Your task to perform on an android device: search for starred emails in the gmail app Image 0: 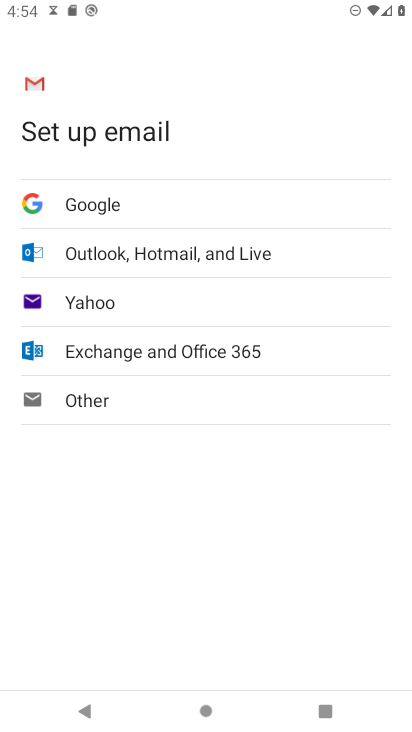
Step 0: press back button
Your task to perform on an android device: search for starred emails in the gmail app Image 1: 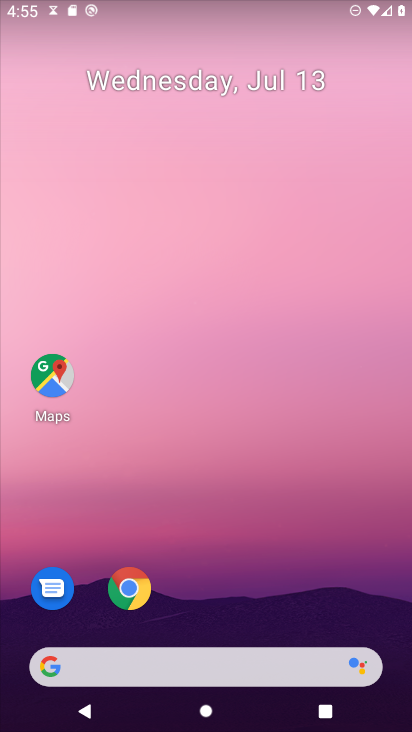
Step 1: drag from (255, 676) to (174, 299)
Your task to perform on an android device: search for starred emails in the gmail app Image 2: 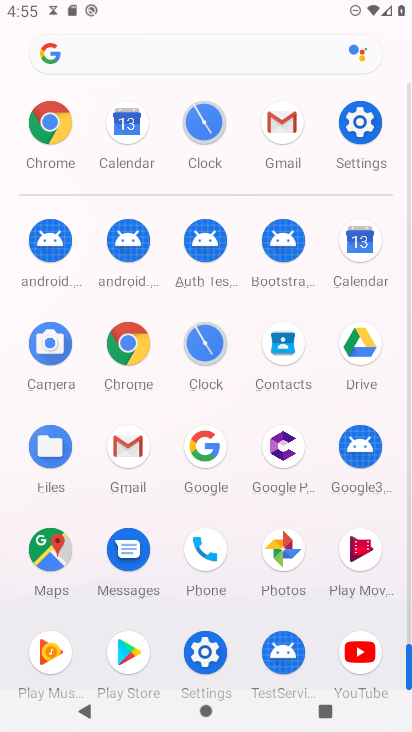
Step 2: click (105, 451)
Your task to perform on an android device: search for starred emails in the gmail app Image 3: 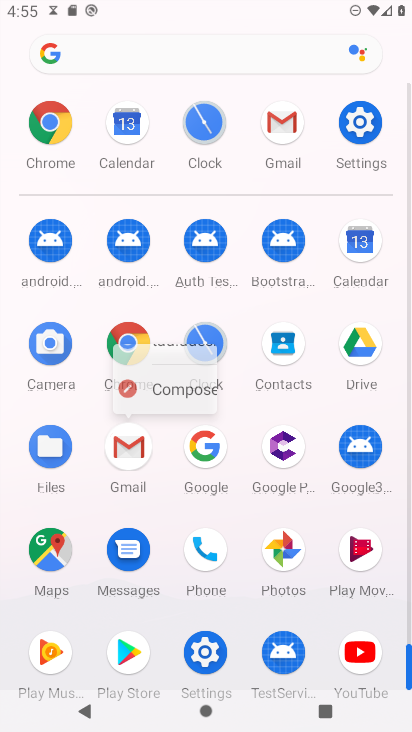
Step 3: click (105, 451)
Your task to perform on an android device: search for starred emails in the gmail app Image 4: 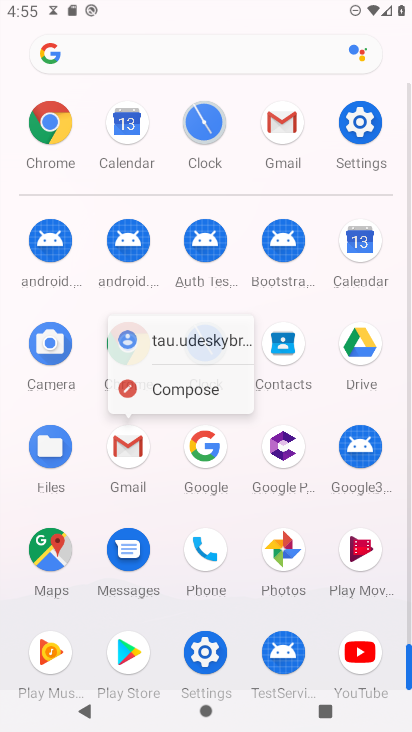
Step 4: click (117, 452)
Your task to perform on an android device: search for starred emails in the gmail app Image 5: 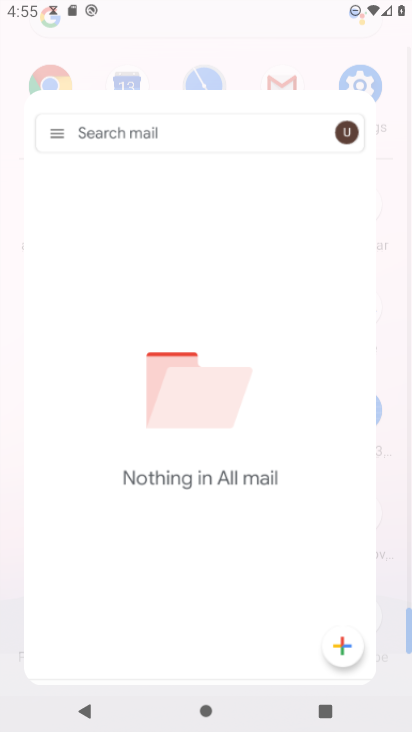
Step 5: click (120, 454)
Your task to perform on an android device: search for starred emails in the gmail app Image 6: 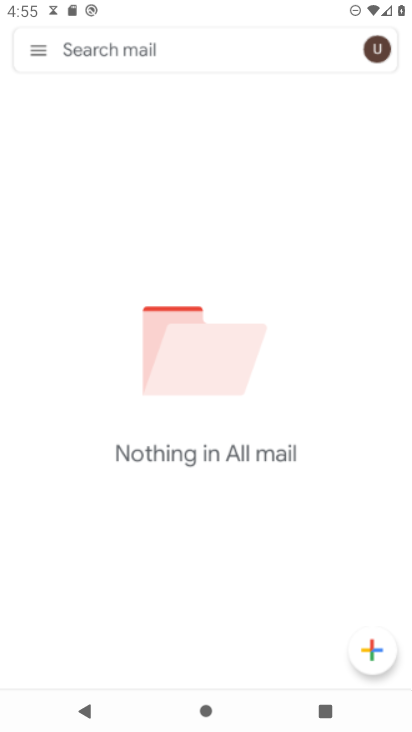
Step 6: click (120, 454)
Your task to perform on an android device: search for starred emails in the gmail app Image 7: 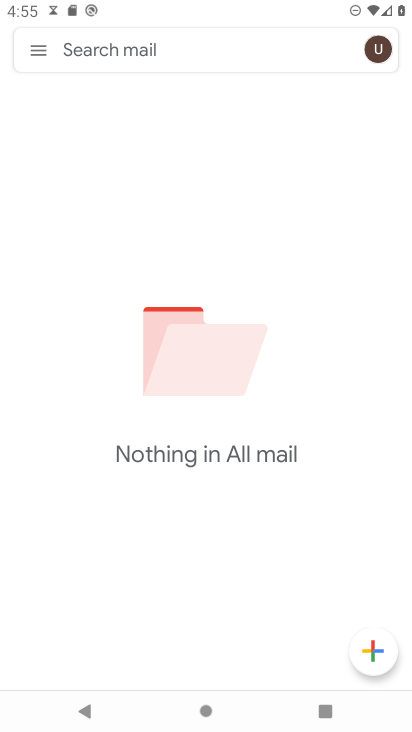
Step 7: click (52, 45)
Your task to perform on an android device: search for starred emails in the gmail app Image 8: 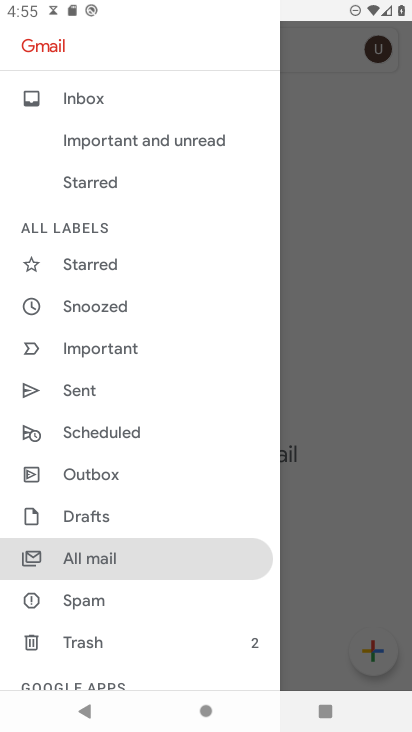
Step 8: click (81, 260)
Your task to perform on an android device: search for starred emails in the gmail app Image 9: 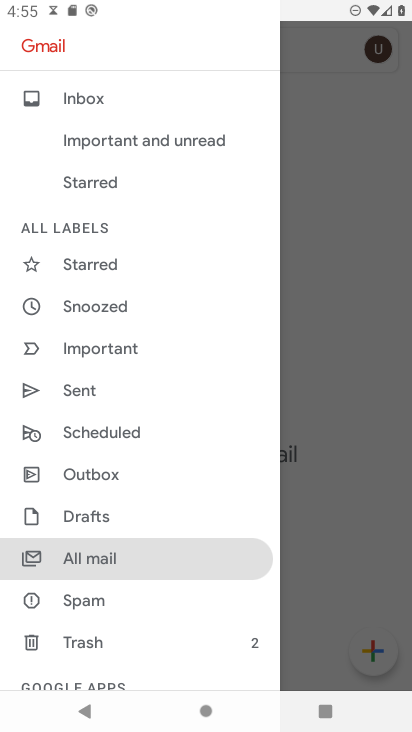
Step 9: click (81, 259)
Your task to perform on an android device: search for starred emails in the gmail app Image 10: 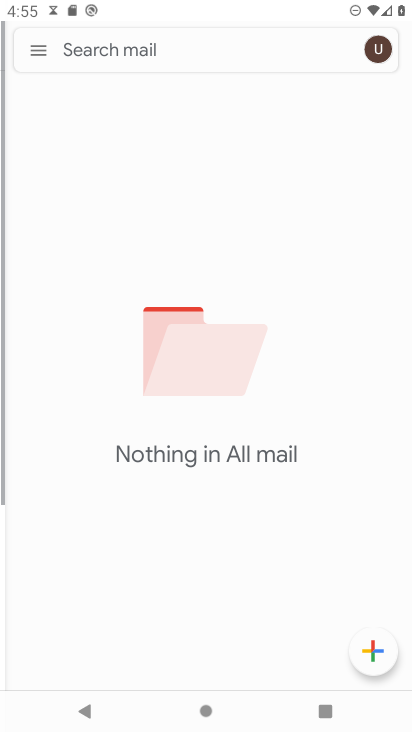
Step 10: click (81, 259)
Your task to perform on an android device: search for starred emails in the gmail app Image 11: 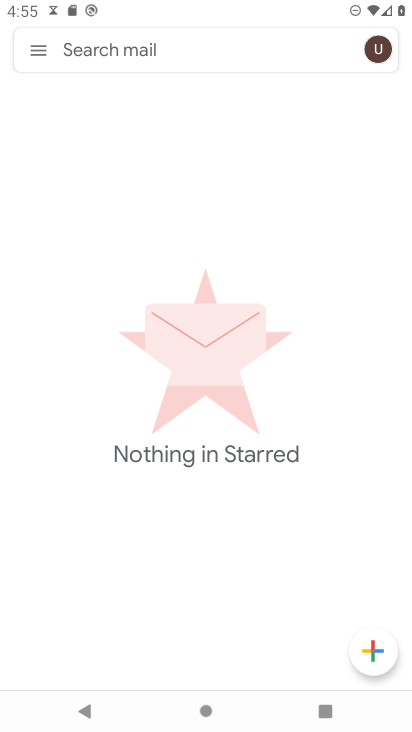
Step 11: task complete